Your task to perform on an android device: turn on airplane mode Image 0: 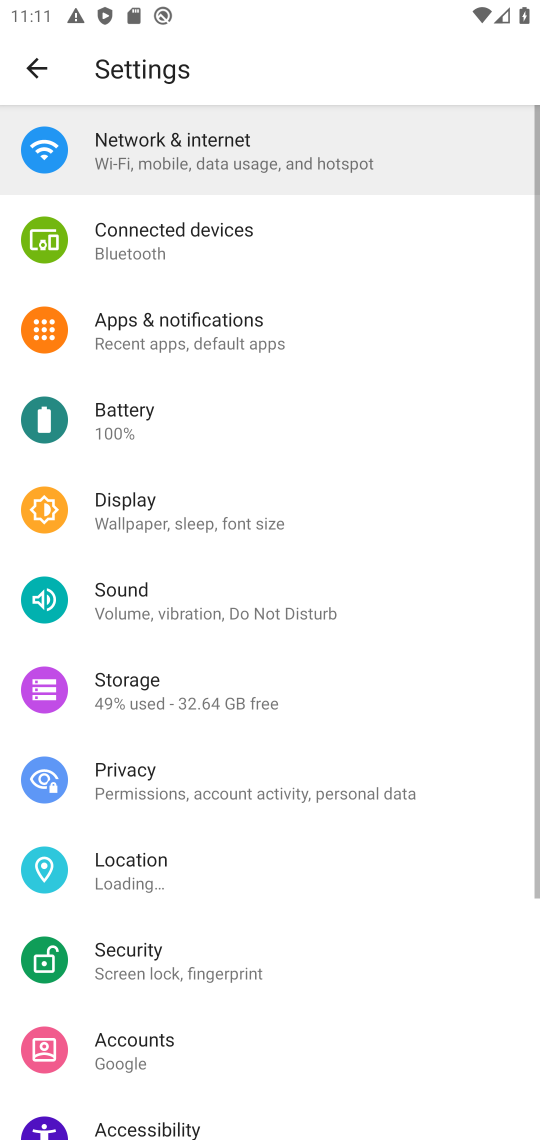
Step 0: press home button
Your task to perform on an android device: turn on airplane mode Image 1: 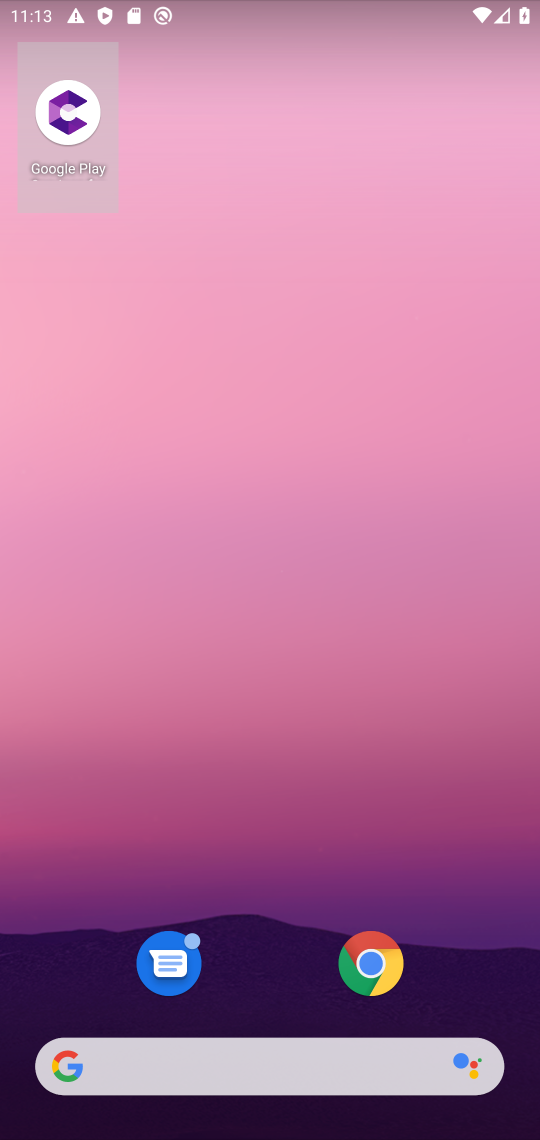
Step 1: drag from (318, 14) to (404, 1070)
Your task to perform on an android device: turn on airplane mode Image 2: 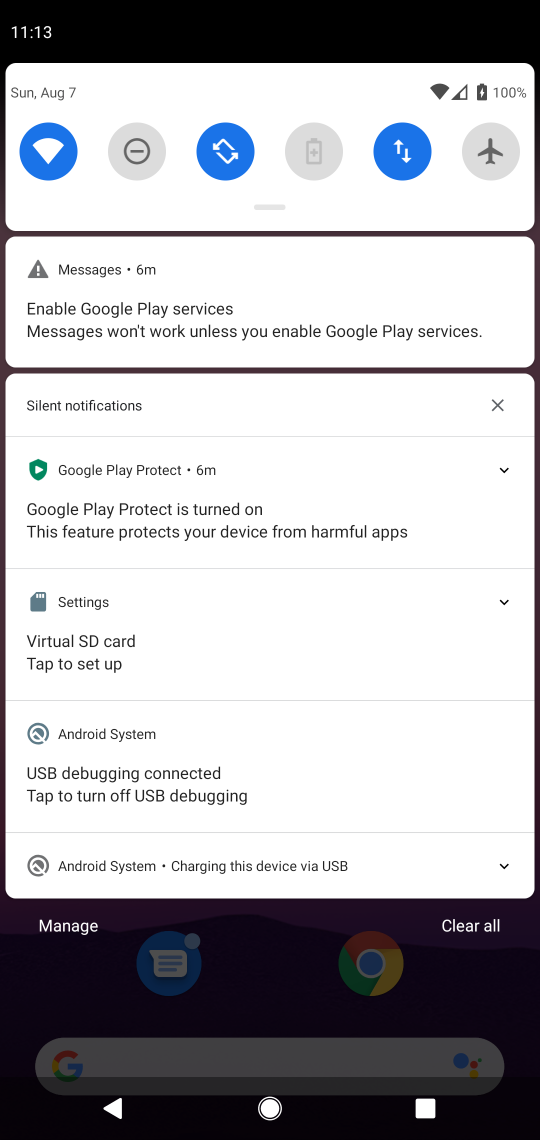
Step 2: click (472, 154)
Your task to perform on an android device: turn on airplane mode Image 3: 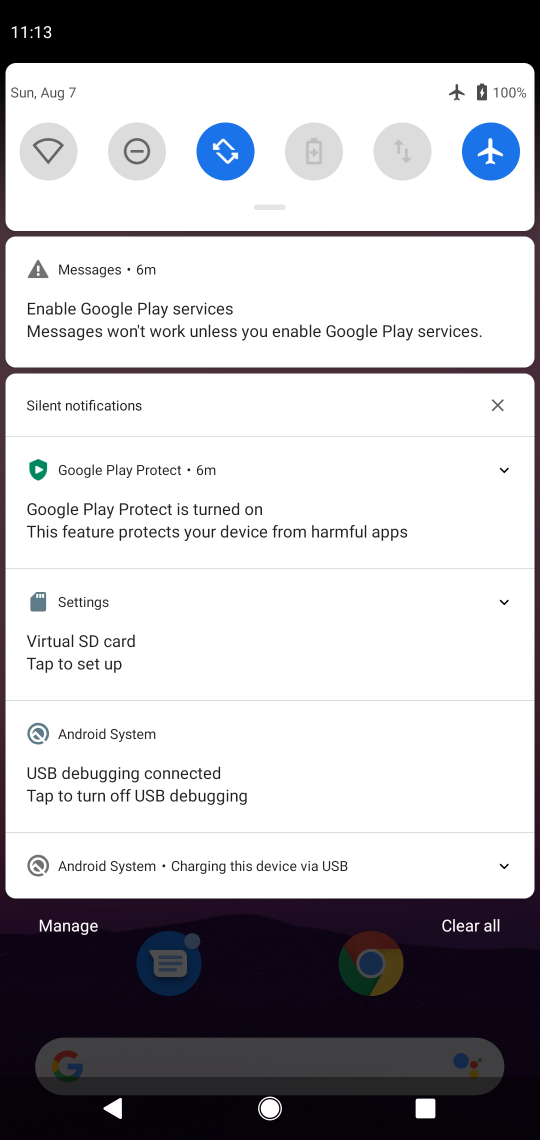
Step 3: task complete